Your task to perform on an android device: What's the weather today? Image 0: 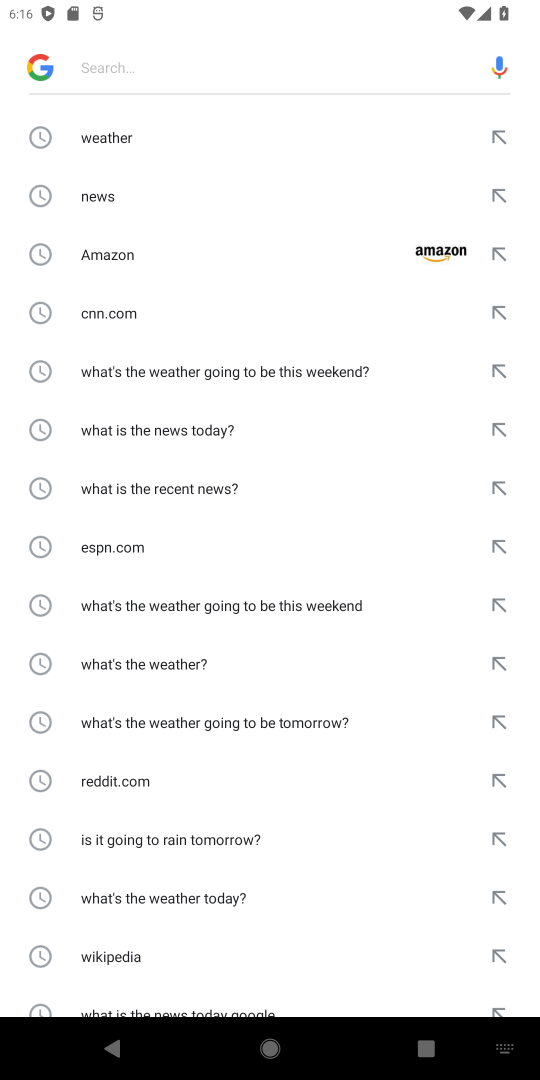
Step 0: press home button
Your task to perform on an android device: What's the weather today? Image 1: 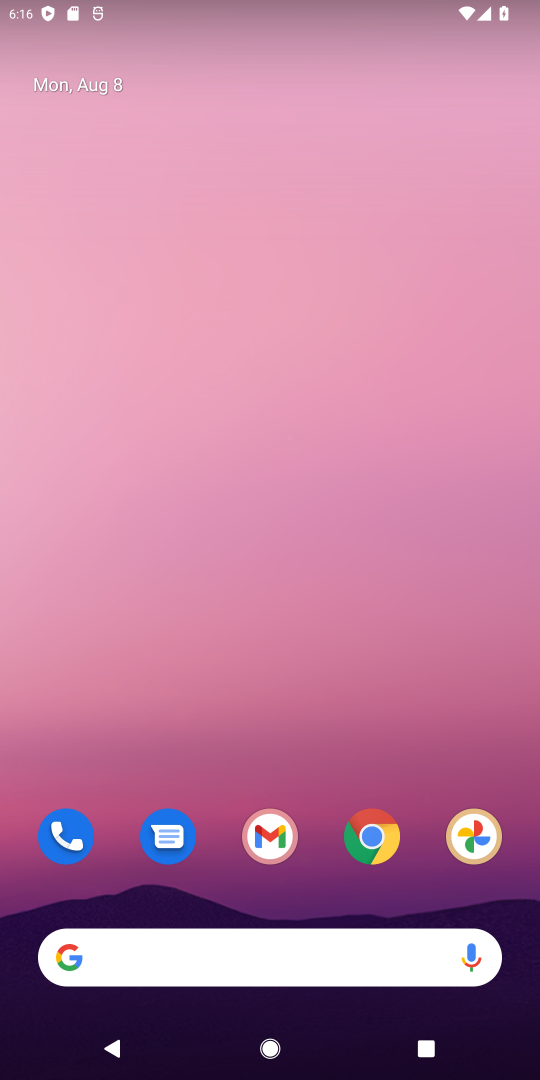
Step 1: drag from (371, 727) to (307, 3)
Your task to perform on an android device: What's the weather today? Image 2: 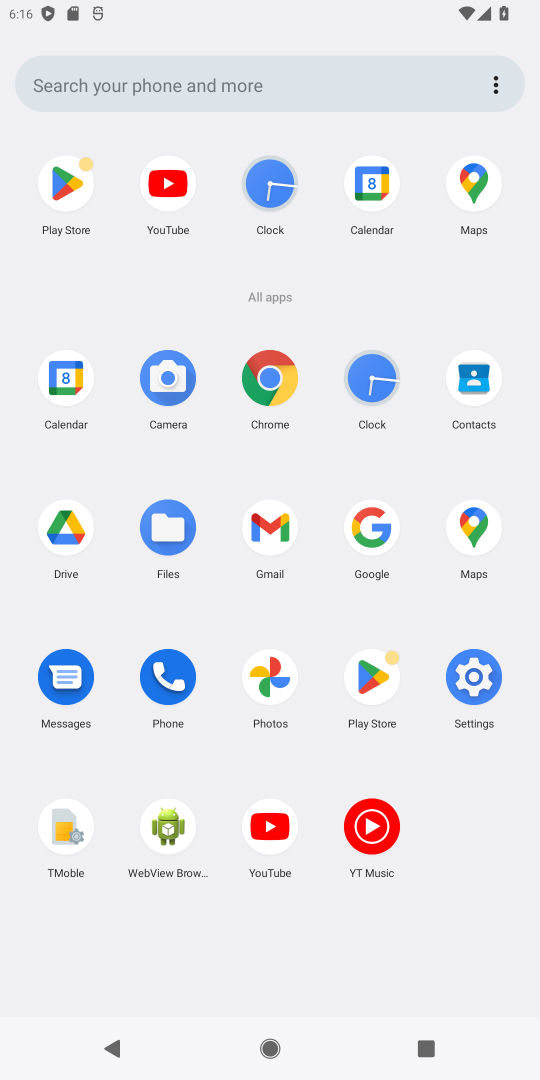
Step 2: click (373, 547)
Your task to perform on an android device: What's the weather today? Image 3: 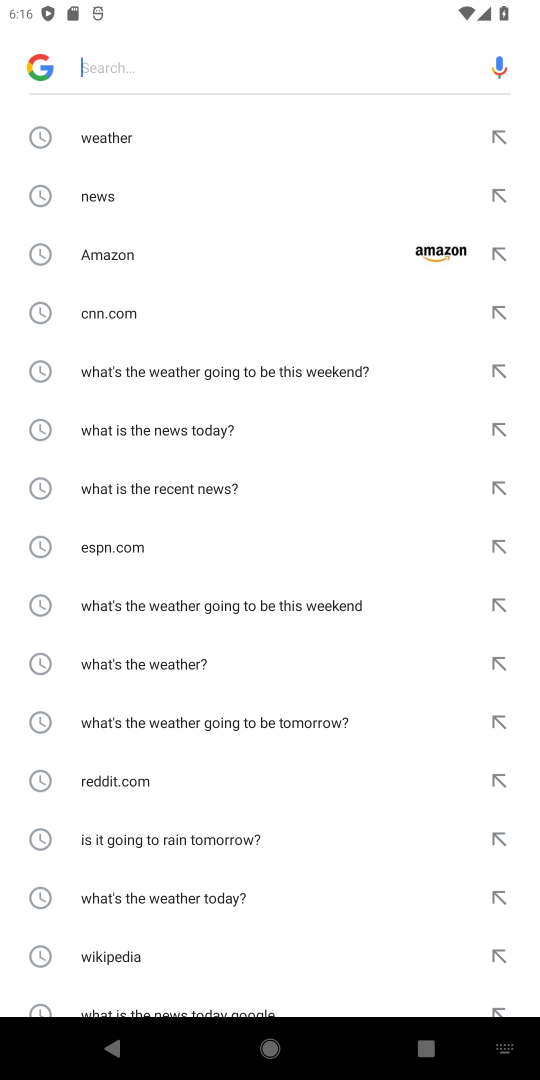
Step 3: click (79, 138)
Your task to perform on an android device: What's the weather today? Image 4: 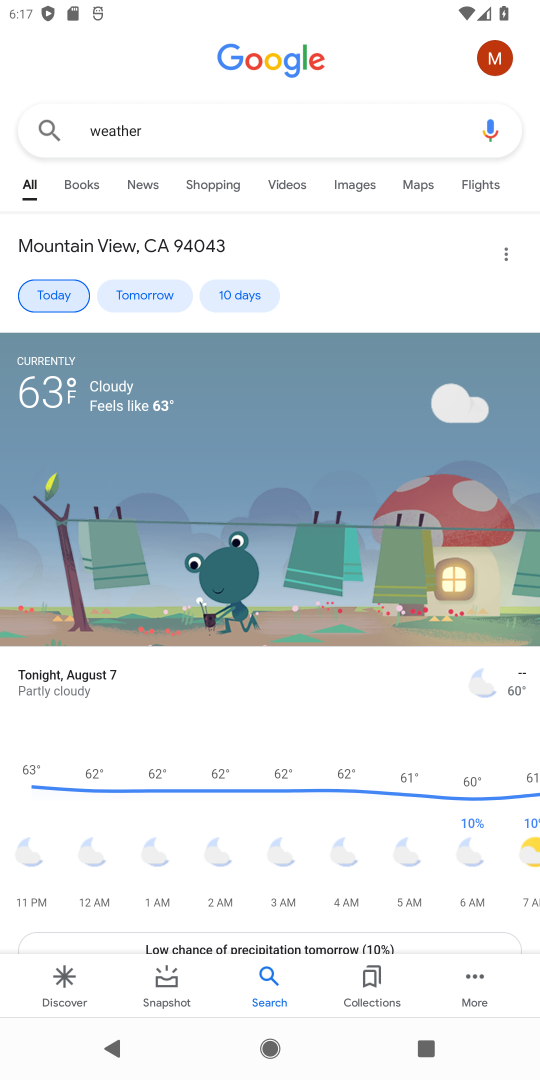
Step 4: task complete